Your task to perform on an android device: turn on wifi Image 0: 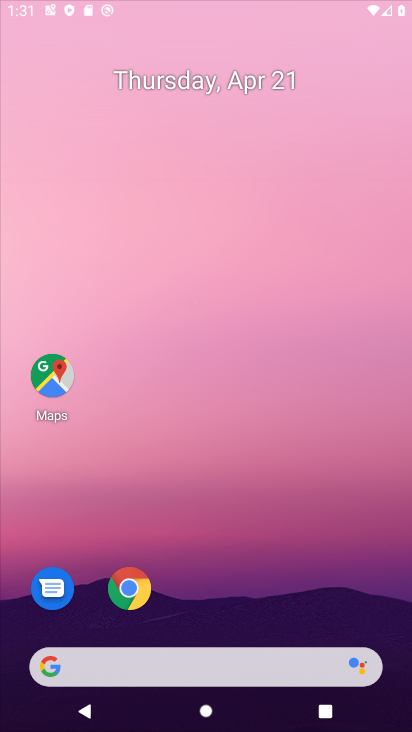
Step 0: click (270, 172)
Your task to perform on an android device: turn on wifi Image 1: 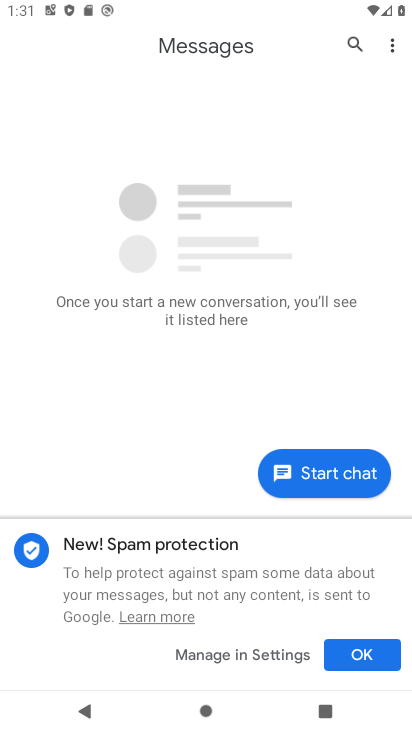
Step 1: press home button
Your task to perform on an android device: turn on wifi Image 2: 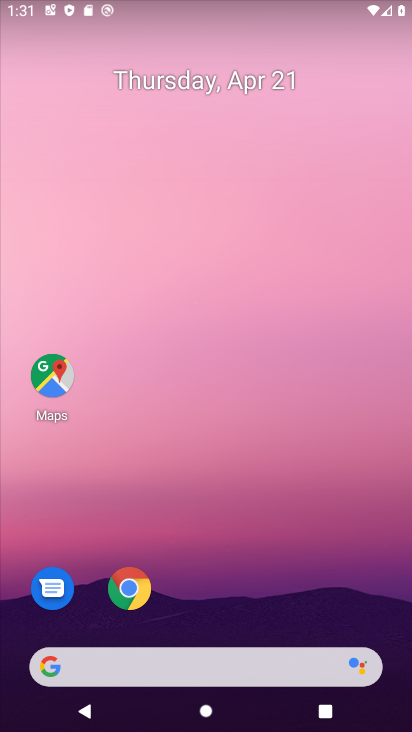
Step 2: drag from (211, 346) to (254, 98)
Your task to perform on an android device: turn on wifi Image 3: 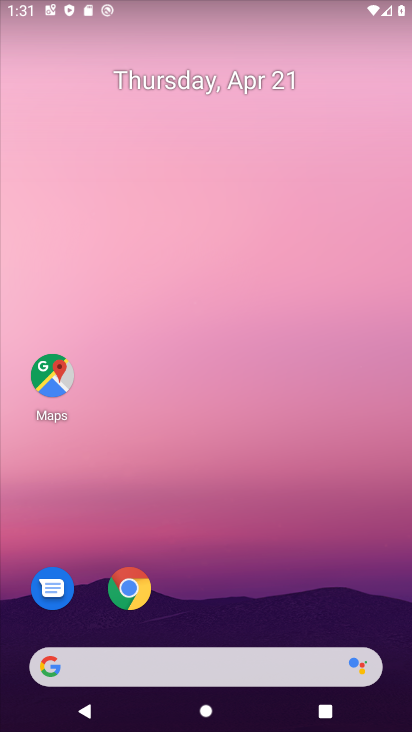
Step 3: drag from (249, 633) to (271, 177)
Your task to perform on an android device: turn on wifi Image 4: 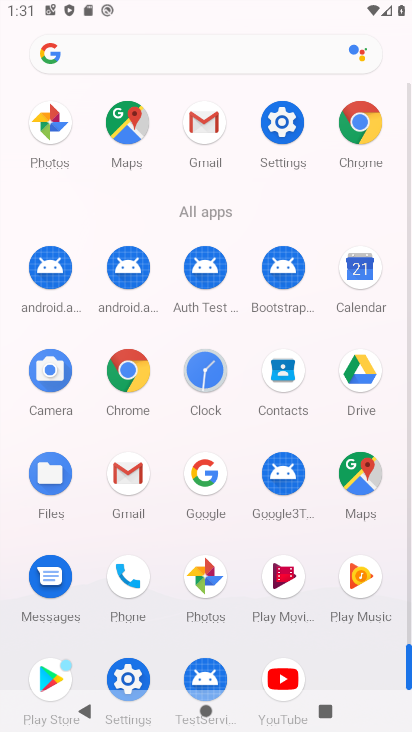
Step 4: drag from (408, 678) to (392, 729)
Your task to perform on an android device: turn on wifi Image 5: 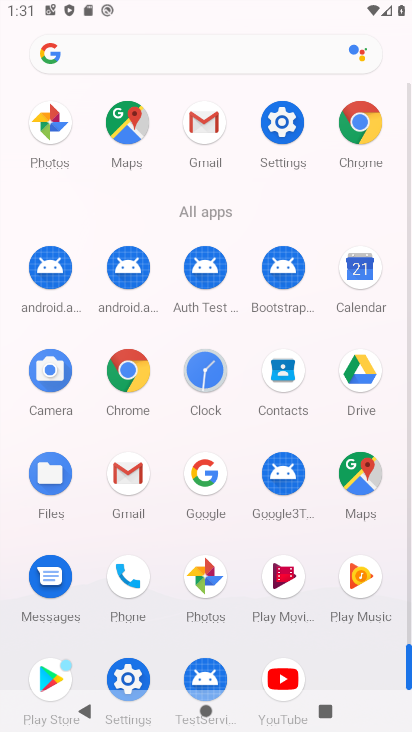
Step 5: drag from (287, 489) to (339, 149)
Your task to perform on an android device: turn on wifi Image 6: 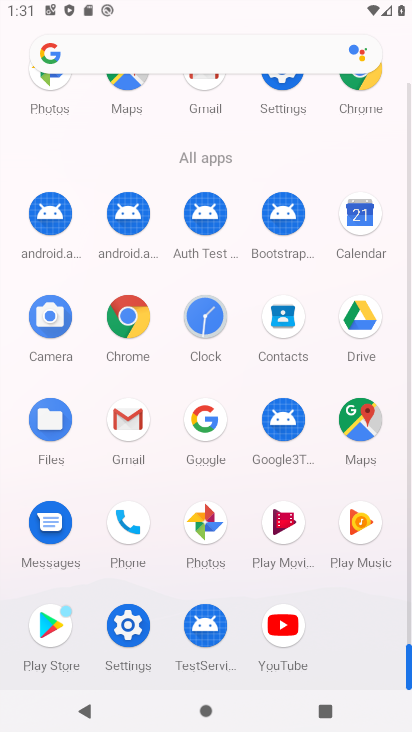
Step 6: click (130, 623)
Your task to perform on an android device: turn on wifi Image 7: 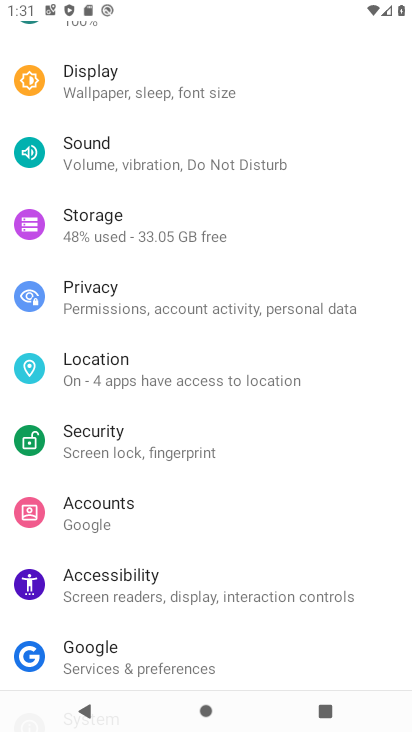
Step 7: drag from (203, 192) to (164, 506)
Your task to perform on an android device: turn on wifi Image 8: 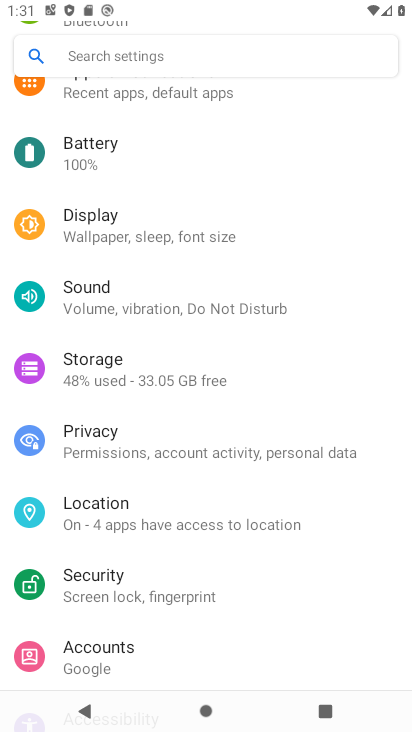
Step 8: drag from (201, 286) to (188, 528)
Your task to perform on an android device: turn on wifi Image 9: 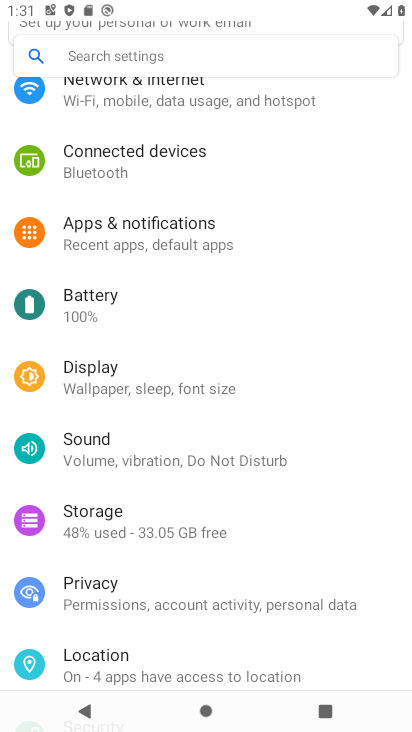
Step 9: drag from (221, 315) to (192, 622)
Your task to perform on an android device: turn on wifi Image 10: 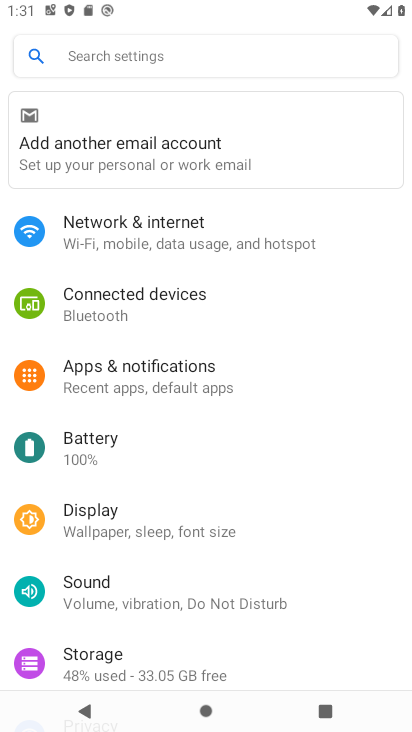
Step 10: click (231, 227)
Your task to perform on an android device: turn on wifi Image 11: 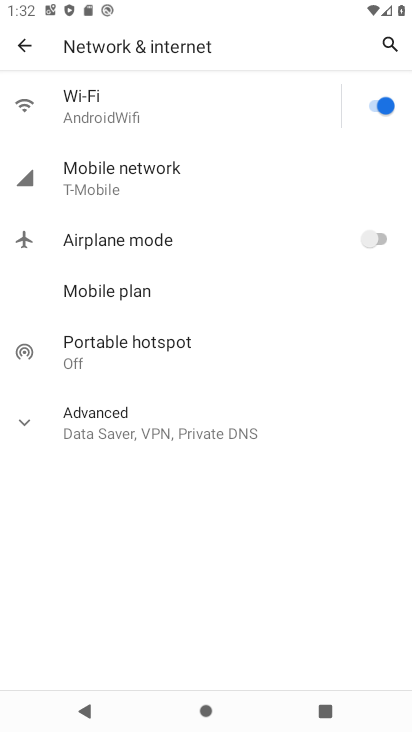
Step 11: task complete